Your task to perform on an android device: Open the map Image 0: 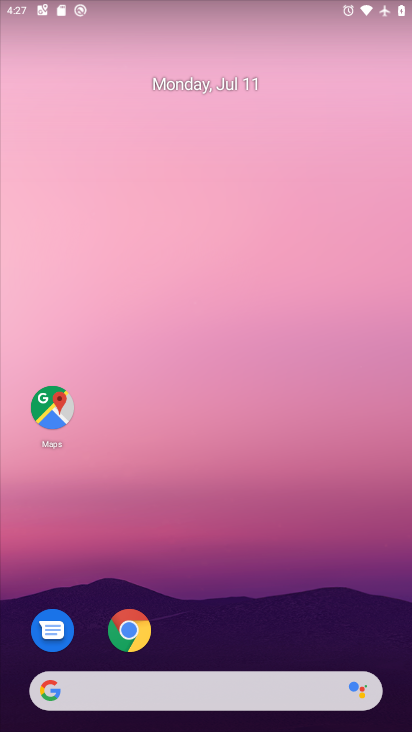
Step 0: press home button
Your task to perform on an android device: Open the map Image 1: 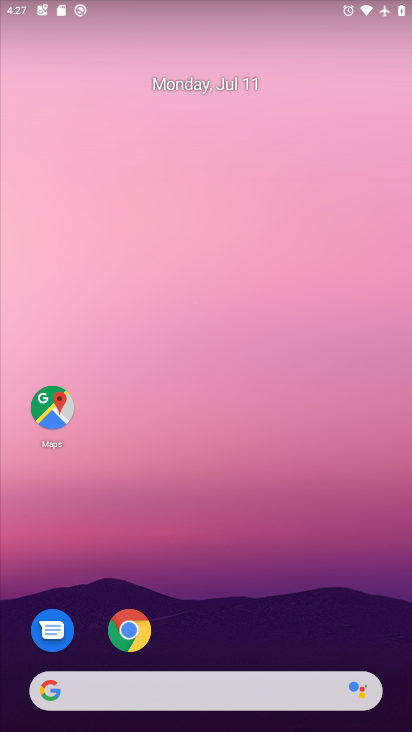
Step 1: drag from (295, 646) to (274, 221)
Your task to perform on an android device: Open the map Image 2: 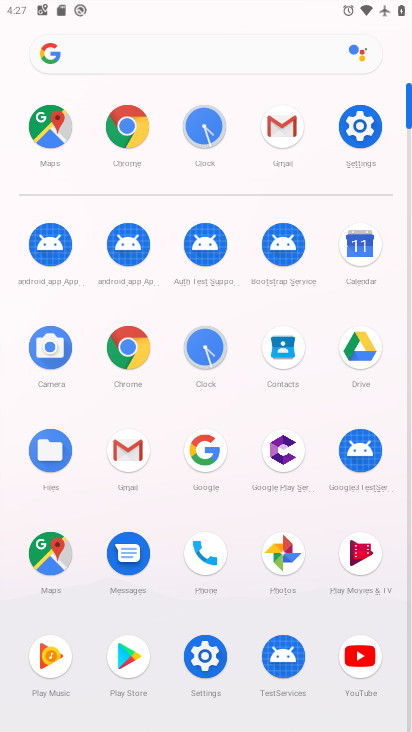
Step 2: click (62, 154)
Your task to perform on an android device: Open the map Image 3: 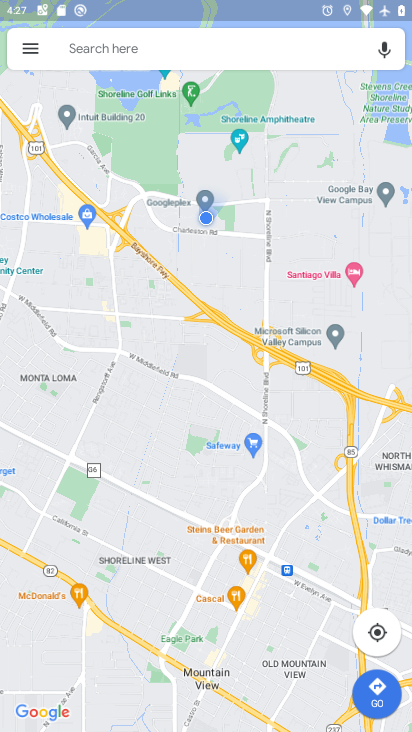
Step 3: task complete